Your task to perform on an android device: Turn on the flashlight Image 0: 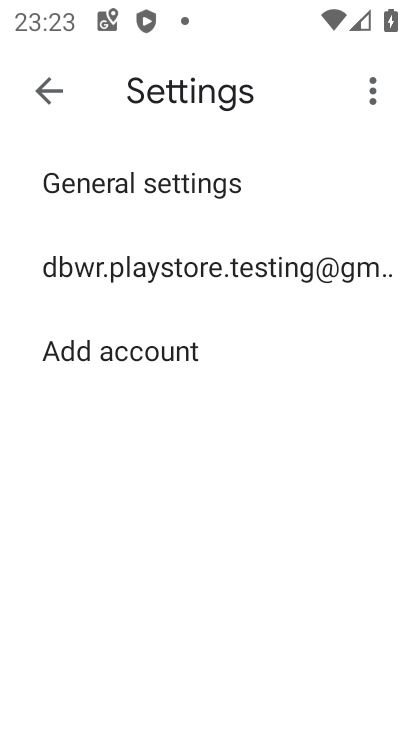
Step 0: press home button
Your task to perform on an android device: Turn on the flashlight Image 1: 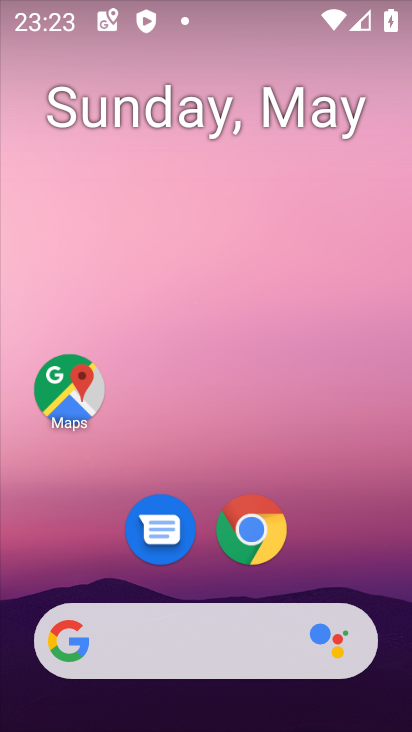
Step 1: drag from (356, 542) to (366, 51)
Your task to perform on an android device: Turn on the flashlight Image 2: 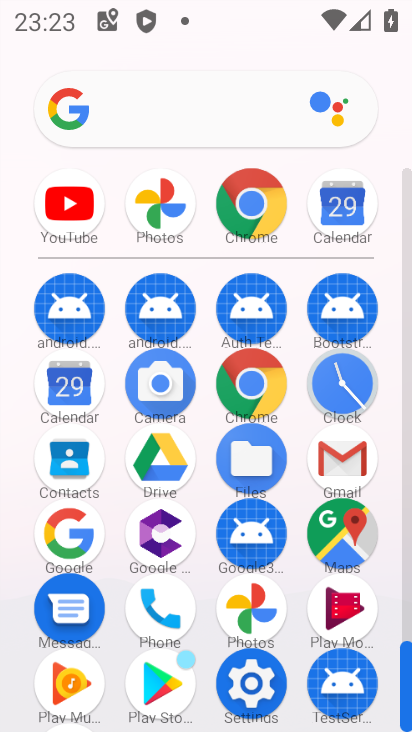
Step 2: click (253, 696)
Your task to perform on an android device: Turn on the flashlight Image 3: 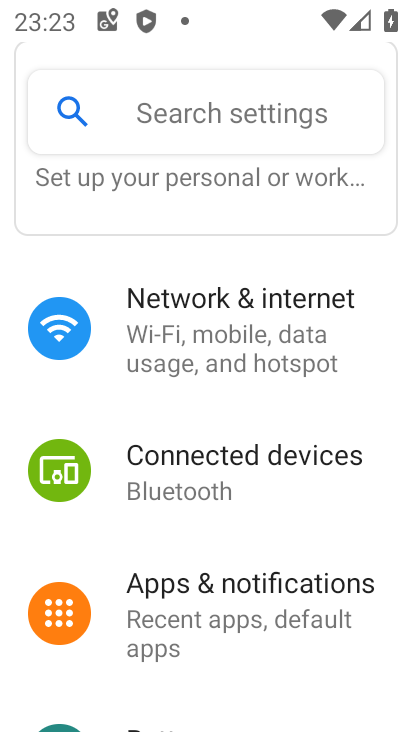
Step 3: task complete